Your task to perform on an android device: turn on the 12-hour format for clock Image 0: 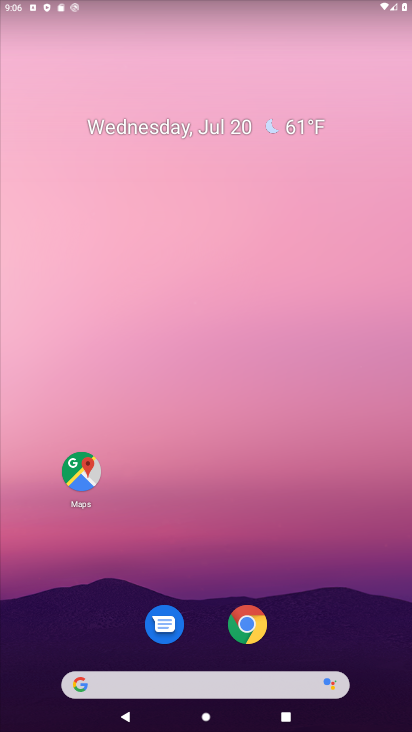
Step 0: drag from (196, 573) to (220, 250)
Your task to perform on an android device: turn on the 12-hour format for clock Image 1: 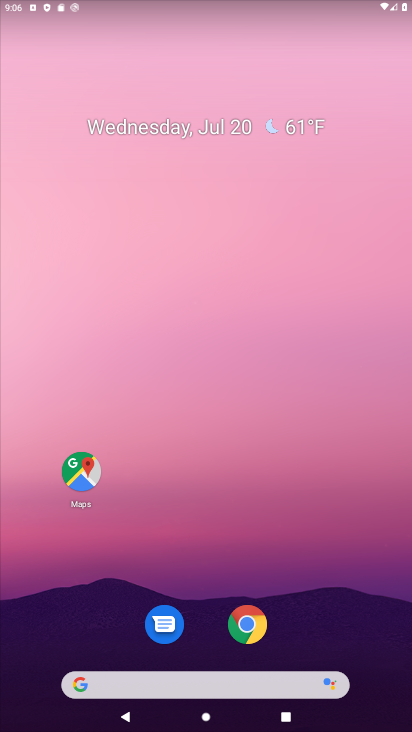
Step 1: drag from (184, 586) to (164, 57)
Your task to perform on an android device: turn on the 12-hour format for clock Image 2: 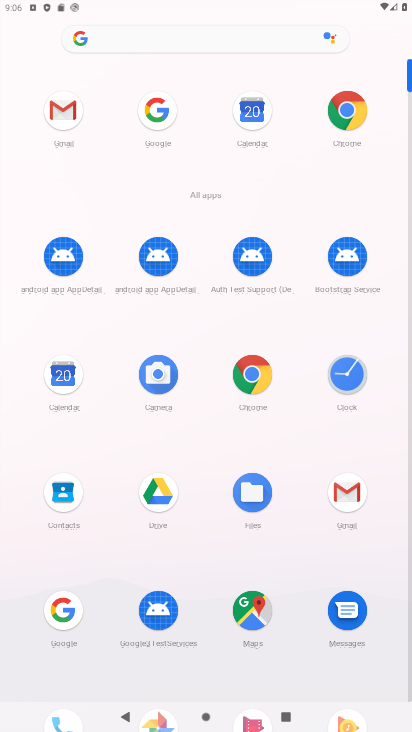
Step 2: click (329, 373)
Your task to perform on an android device: turn on the 12-hour format for clock Image 3: 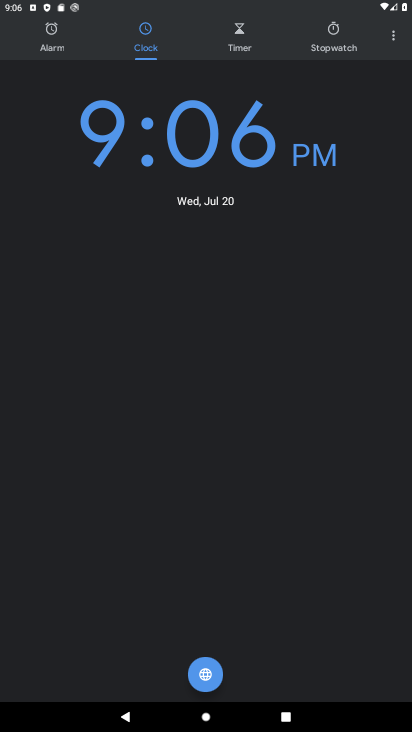
Step 3: click (388, 30)
Your task to perform on an android device: turn on the 12-hour format for clock Image 4: 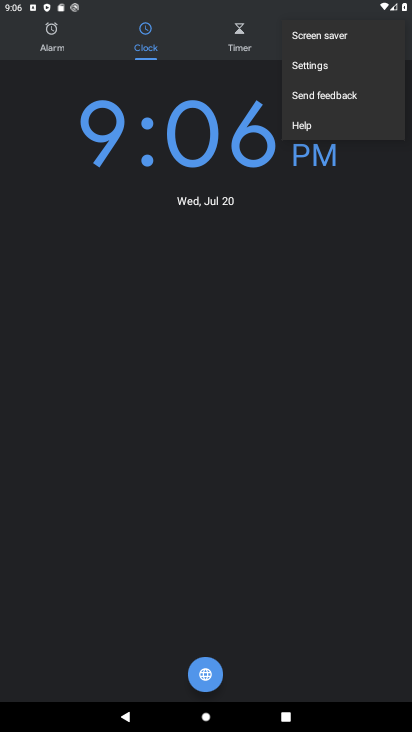
Step 4: click (340, 72)
Your task to perform on an android device: turn on the 12-hour format for clock Image 5: 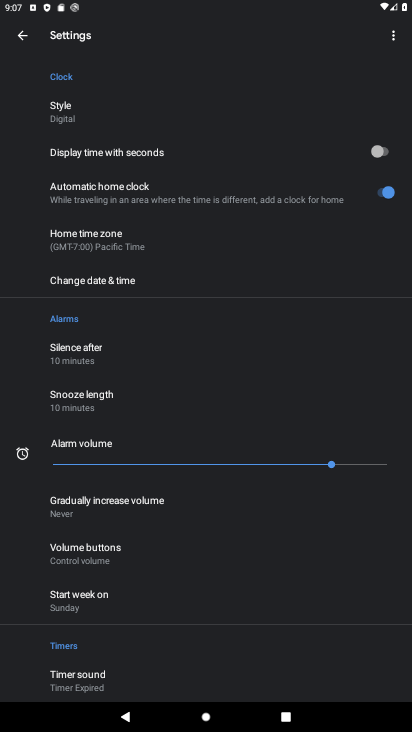
Step 5: click (171, 278)
Your task to perform on an android device: turn on the 12-hour format for clock Image 6: 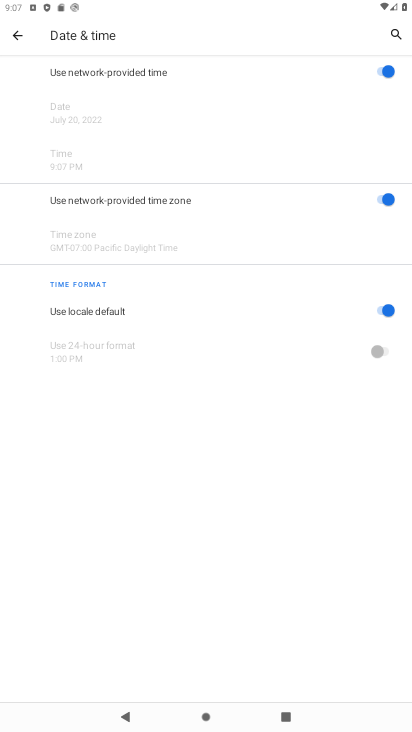
Step 6: task complete